Your task to perform on an android device: turn off improve location accuracy Image 0: 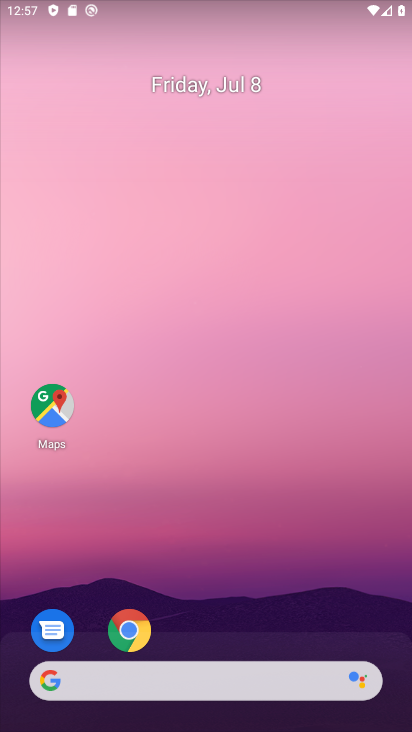
Step 0: drag from (265, 615) to (259, 52)
Your task to perform on an android device: turn off improve location accuracy Image 1: 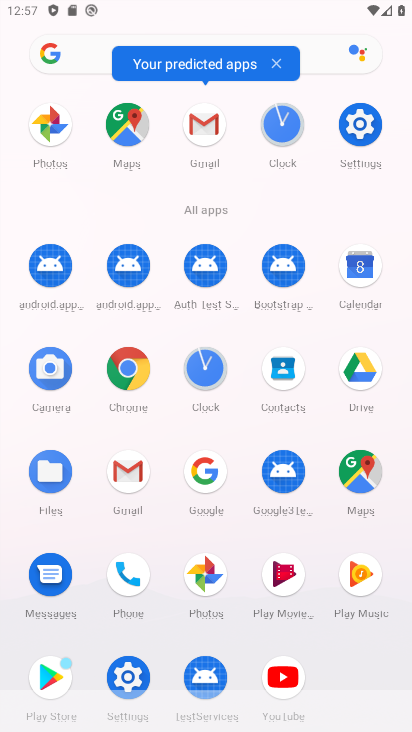
Step 1: drag from (355, 129) to (157, 142)
Your task to perform on an android device: turn off improve location accuracy Image 2: 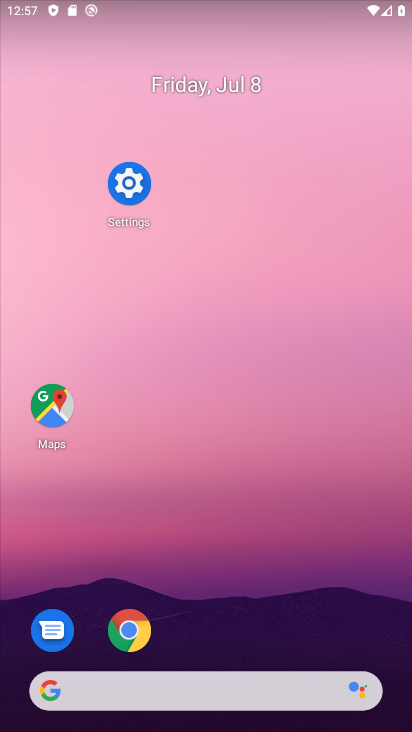
Step 2: click (133, 176)
Your task to perform on an android device: turn off improve location accuracy Image 3: 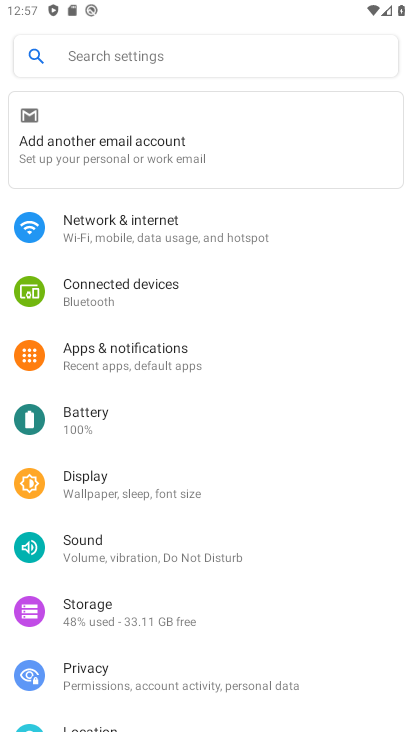
Step 3: drag from (289, 546) to (287, 284)
Your task to perform on an android device: turn off improve location accuracy Image 4: 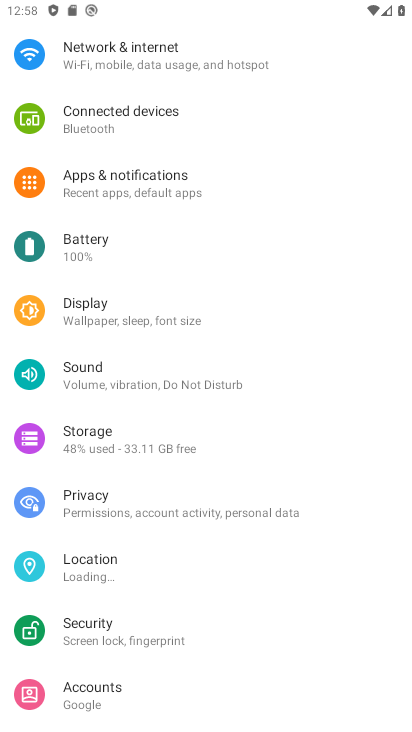
Step 4: click (179, 580)
Your task to perform on an android device: turn off improve location accuracy Image 5: 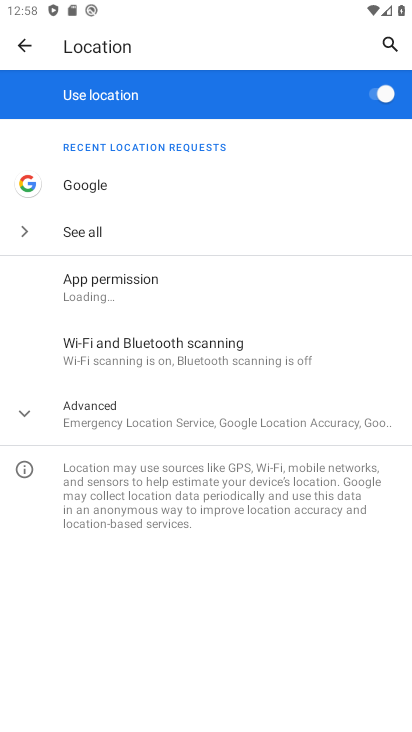
Step 5: click (136, 415)
Your task to perform on an android device: turn off improve location accuracy Image 6: 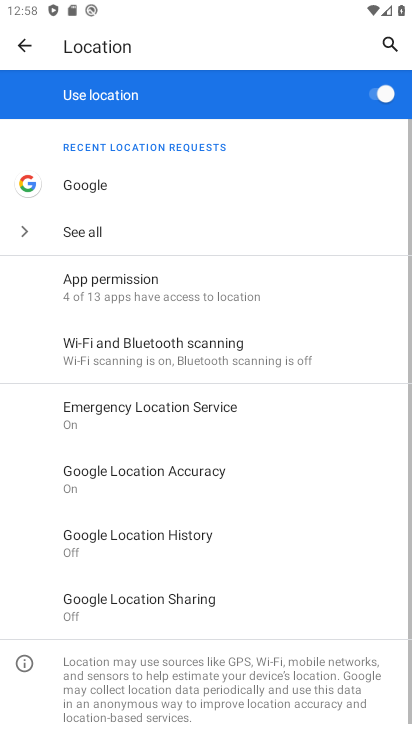
Step 6: click (214, 477)
Your task to perform on an android device: turn off improve location accuracy Image 7: 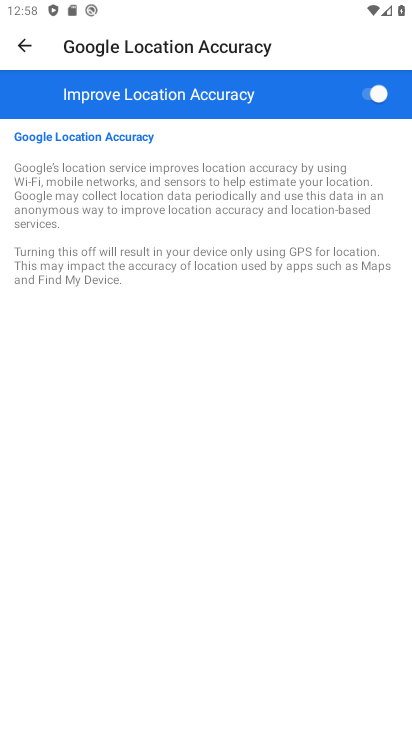
Step 7: click (380, 94)
Your task to perform on an android device: turn off improve location accuracy Image 8: 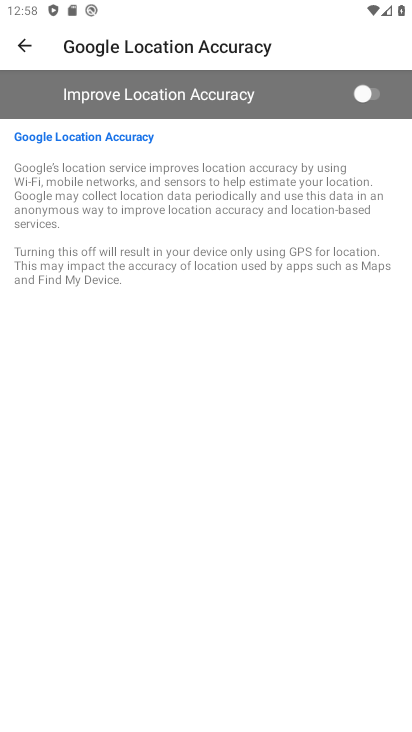
Step 8: task complete